Your task to perform on an android device: Show me popular videos on Youtube Image 0: 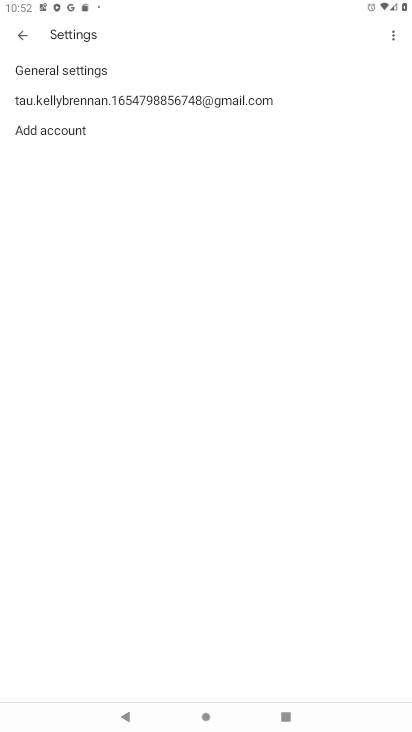
Step 0: click (19, 44)
Your task to perform on an android device: Show me popular videos on Youtube Image 1: 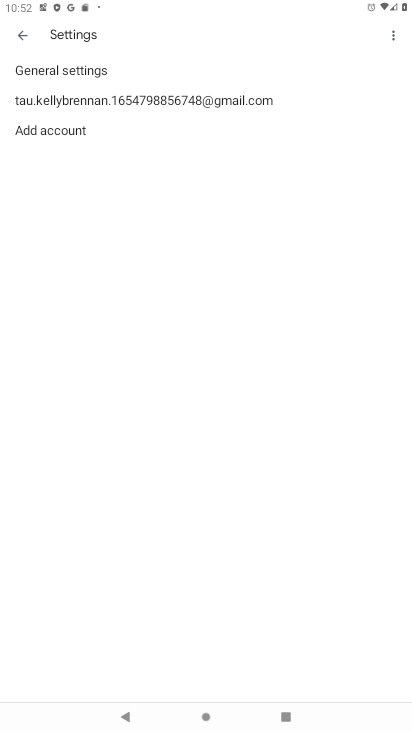
Step 1: press home button
Your task to perform on an android device: Show me popular videos on Youtube Image 2: 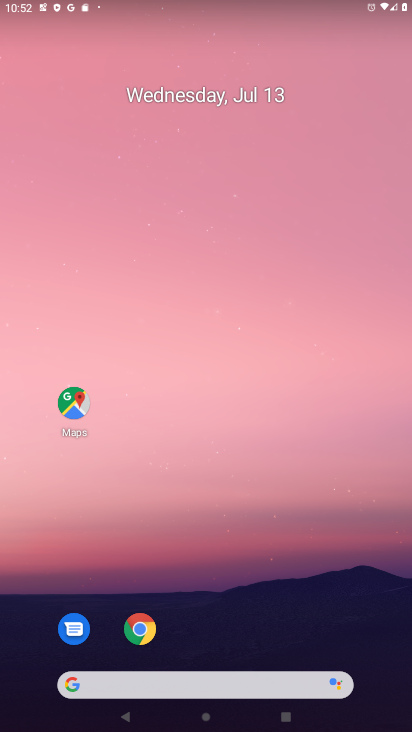
Step 2: drag from (264, 623) to (250, 276)
Your task to perform on an android device: Show me popular videos on Youtube Image 3: 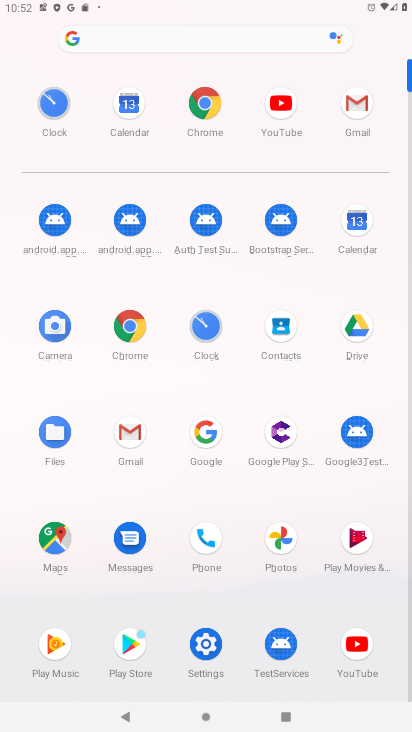
Step 3: click (343, 667)
Your task to perform on an android device: Show me popular videos on Youtube Image 4: 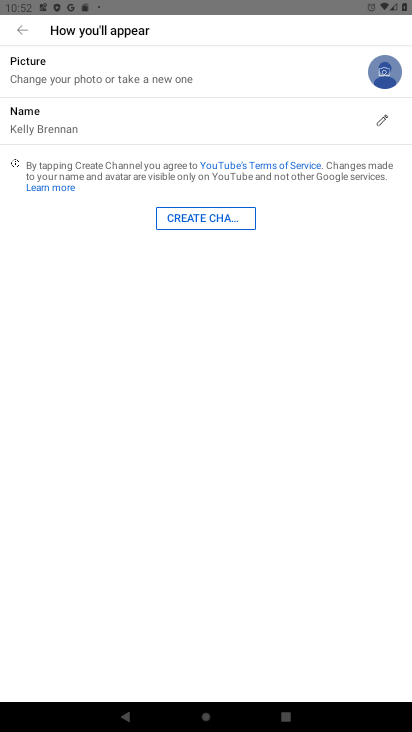
Step 4: click (26, 30)
Your task to perform on an android device: Show me popular videos on Youtube Image 5: 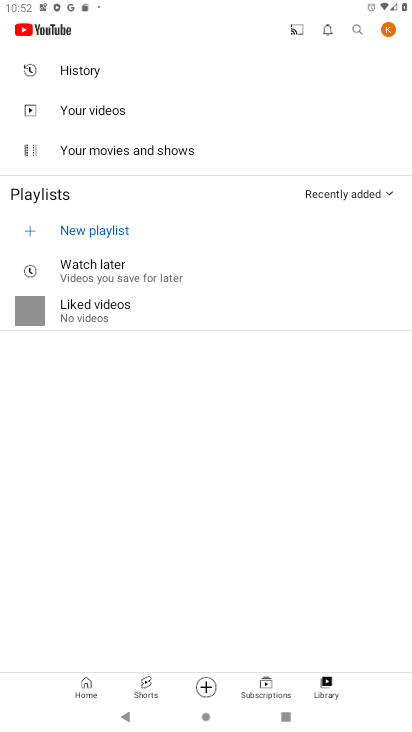
Step 5: task complete